Your task to perform on an android device: find which apps use the phone's location Image 0: 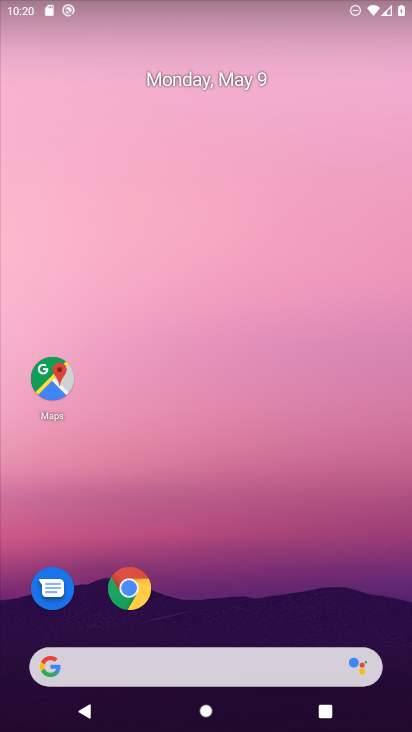
Step 0: drag from (329, 568) to (159, 1)
Your task to perform on an android device: find which apps use the phone's location Image 1: 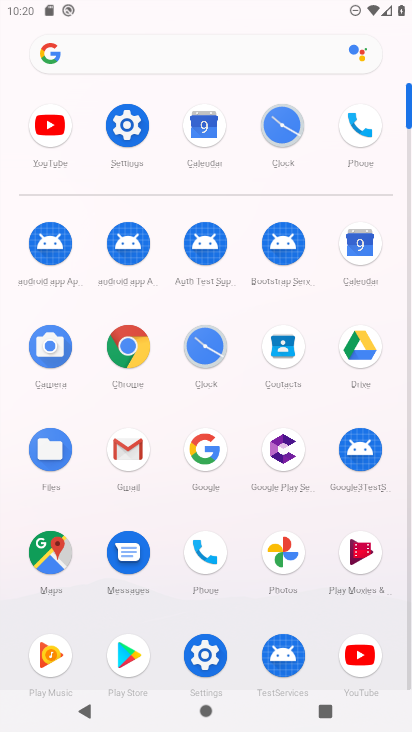
Step 1: click (131, 164)
Your task to perform on an android device: find which apps use the phone's location Image 2: 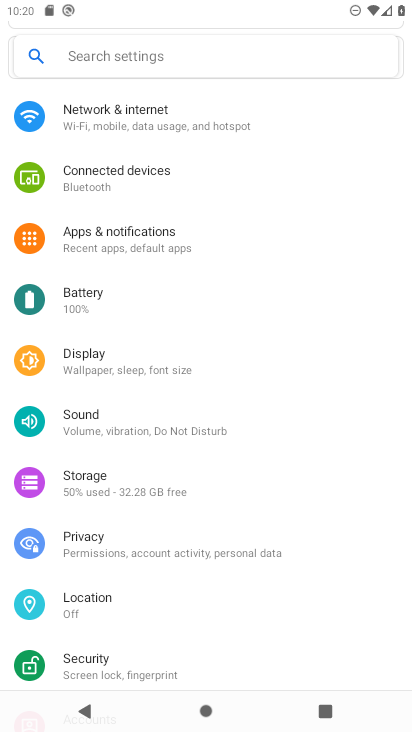
Step 2: click (139, 599)
Your task to perform on an android device: find which apps use the phone's location Image 3: 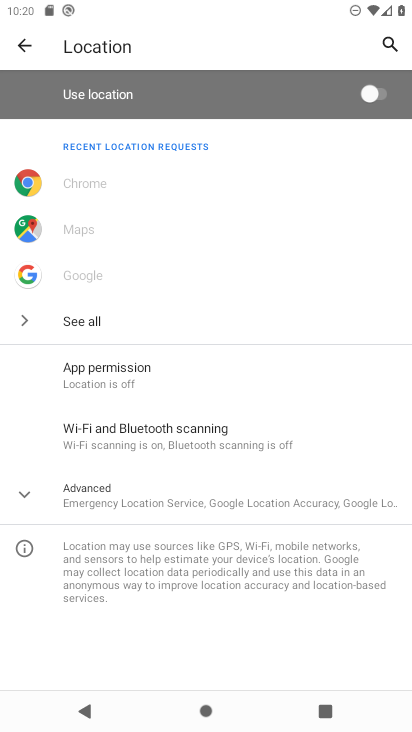
Step 3: task complete